Your task to perform on an android device: check the backup settings in the google photos Image 0: 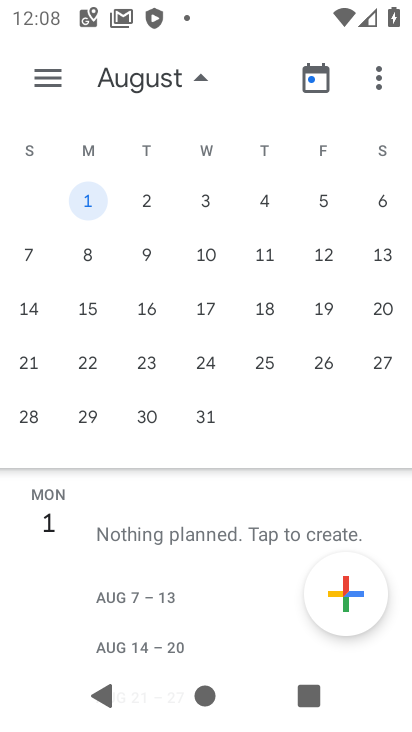
Step 0: press back button
Your task to perform on an android device: check the backup settings in the google photos Image 1: 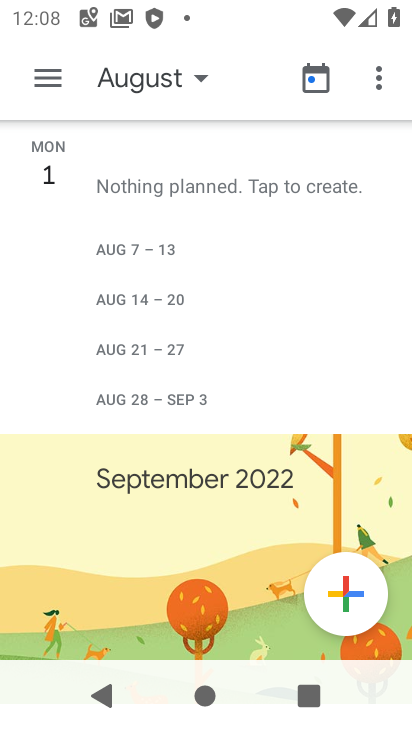
Step 1: press back button
Your task to perform on an android device: check the backup settings in the google photos Image 2: 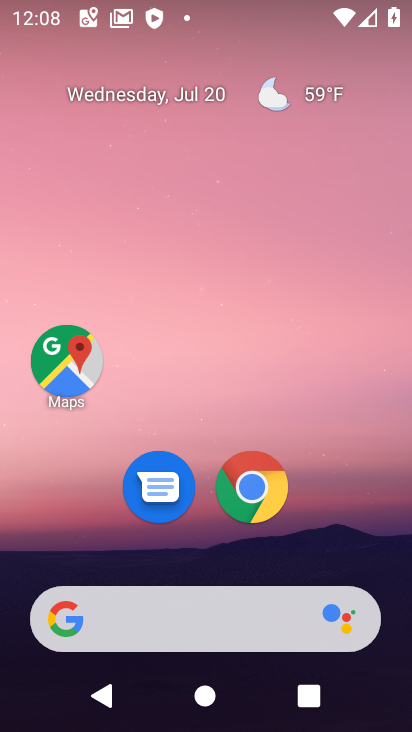
Step 2: drag from (193, 551) to (327, 1)
Your task to perform on an android device: check the backup settings in the google photos Image 3: 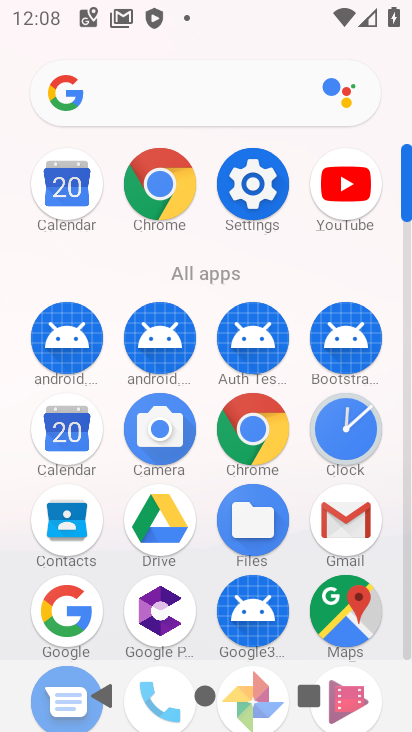
Step 3: drag from (229, 609) to (333, 193)
Your task to perform on an android device: check the backup settings in the google photos Image 4: 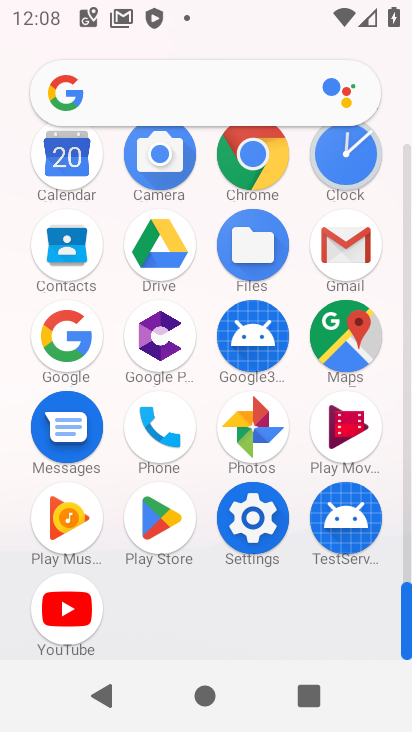
Step 4: click (252, 437)
Your task to perform on an android device: check the backup settings in the google photos Image 5: 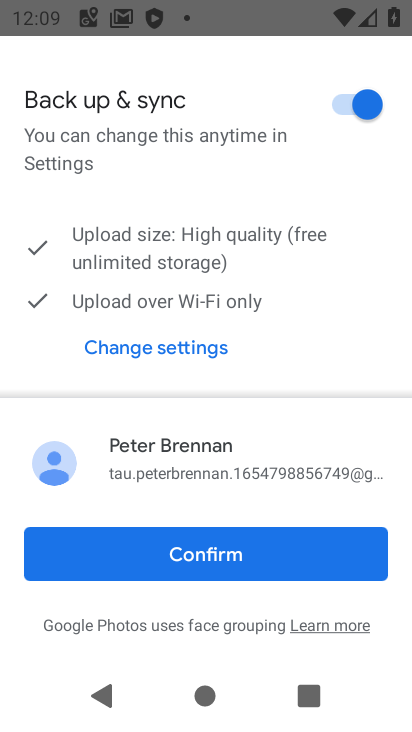
Step 5: click (193, 538)
Your task to perform on an android device: check the backup settings in the google photos Image 6: 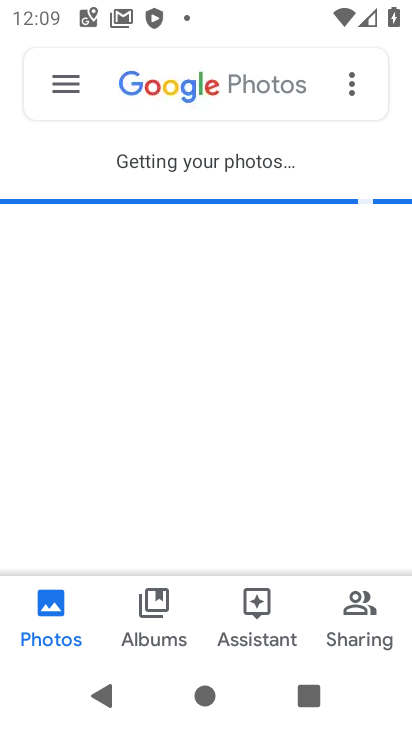
Step 6: click (63, 83)
Your task to perform on an android device: check the backup settings in the google photos Image 7: 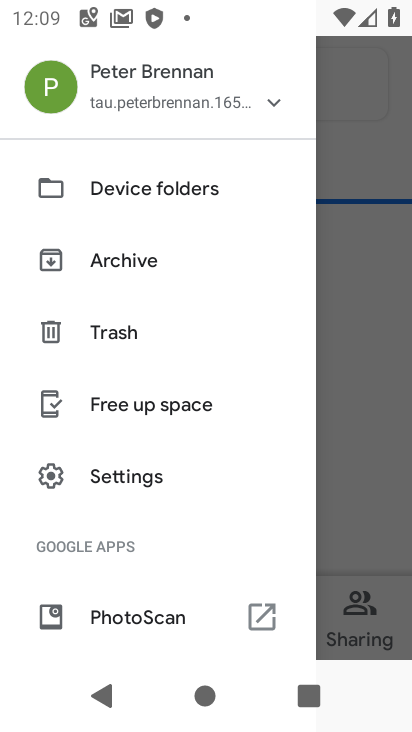
Step 7: click (135, 464)
Your task to perform on an android device: check the backup settings in the google photos Image 8: 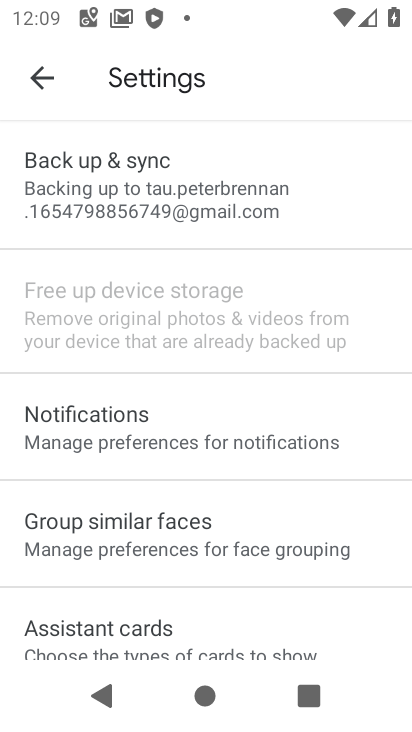
Step 8: click (178, 195)
Your task to perform on an android device: check the backup settings in the google photos Image 9: 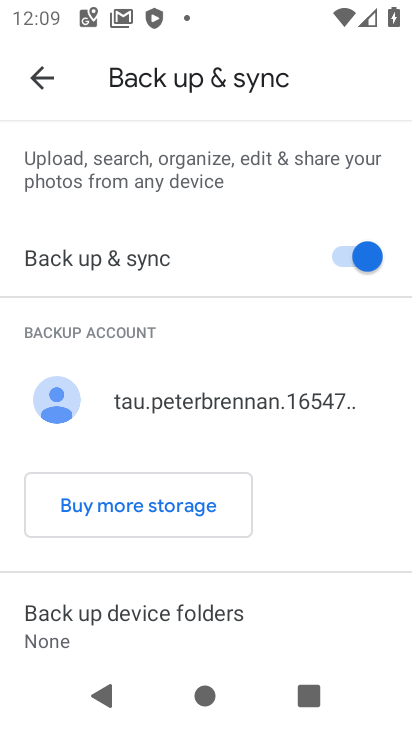
Step 9: task complete